Your task to perform on an android device: Go to wifi settings Image 0: 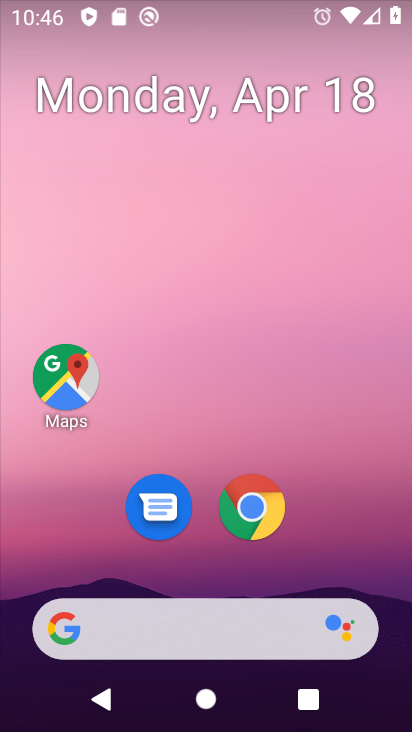
Step 0: click (252, 342)
Your task to perform on an android device: Go to wifi settings Image 1: 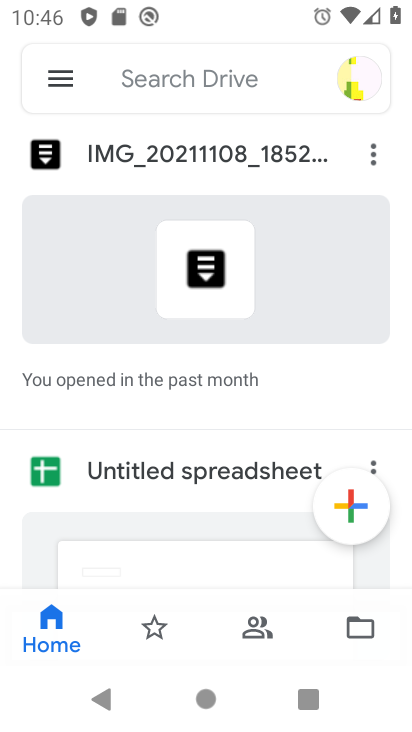
Step 1: press back button
Your task to perform on an android device: Go to wifi settings Image 2: 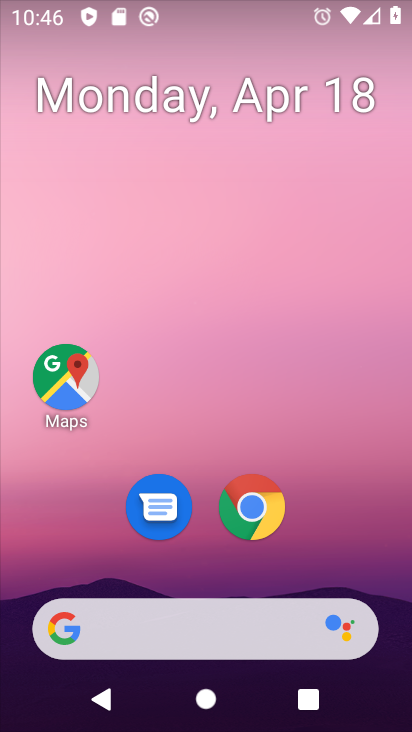
Step 2: drag from (274, 628) to (240, 199)
Your task to perform on an android device: Go to wifi settings Image 3: 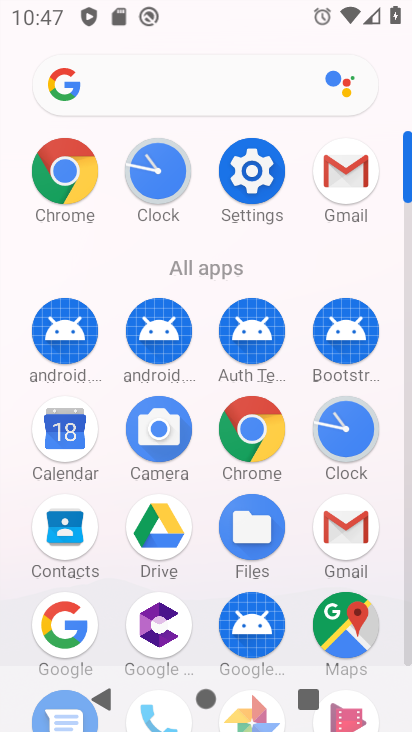
Step 3: click (237, 174)
Your task to perform on an android device: Go to wifi settings Image 4: 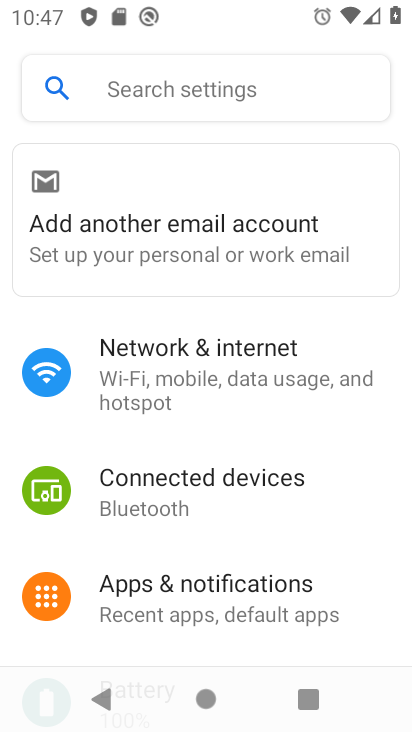
Step 4: click (179, 366)
Your task to perform on an android device: Go to wifi settings Image 5: 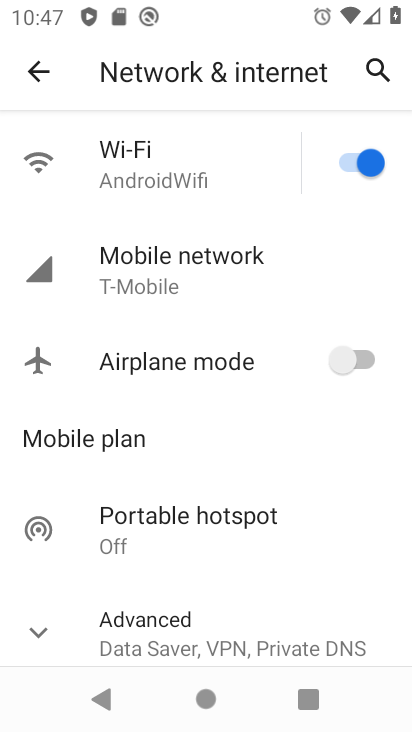
Step 5: click (167, 168)
Your task to perform on an android device: Go to wifi settings Image 6: 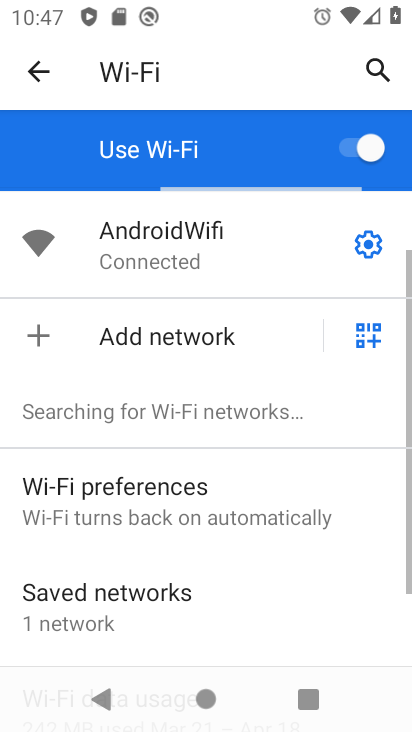
Step 6: task complete